Your task to perform on an android device: turn off smart reply in the gmail app Image 0: 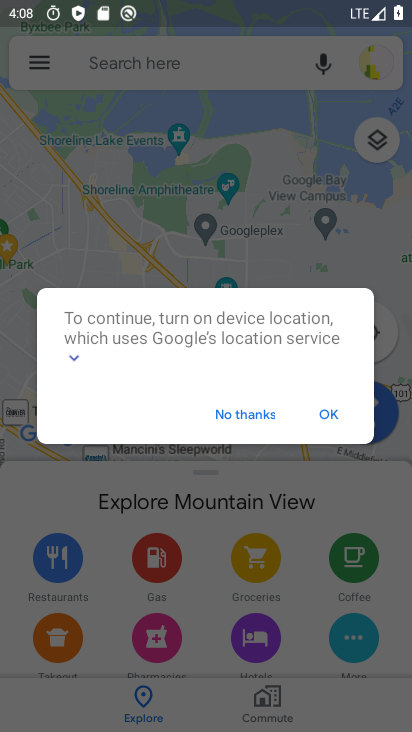
Step 0: press home button
Your task to perform on an android device: turn off smart reply in the gmail app Image 1: 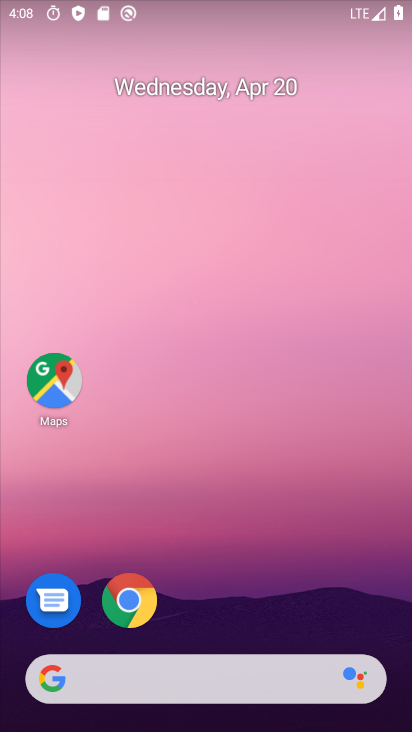
Step 1: drag from (216, 605) to (250, 111)
Your task to perform on an android device: turn off smart reply in the gmail app Image 2: 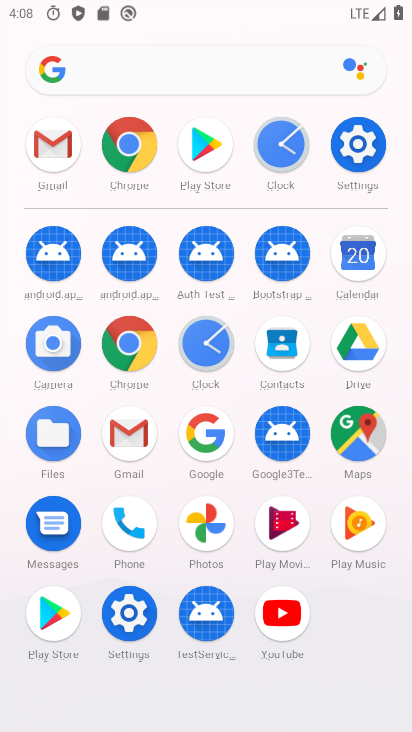
Step 2: click (126, 424)
Your task to perform on an android device: turn off smart reply in the gmail app Image 3: 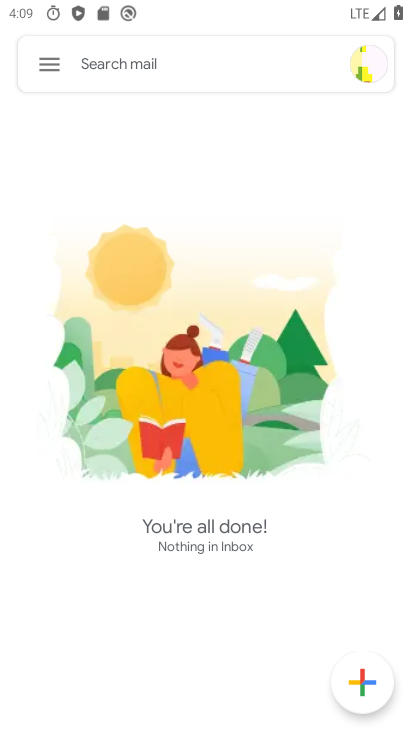
Step 3: click (48, 68)
Your task to perform on an android device: turn off smart reply in the gmail app Image 4: 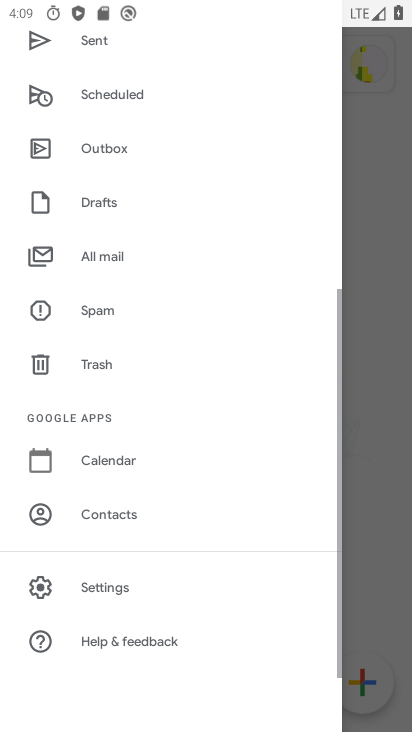
Step 4: drag from (137, 538) to (212, 17)
Your task to perform on an android device: turn off smart reply in the gmail app Image 5: 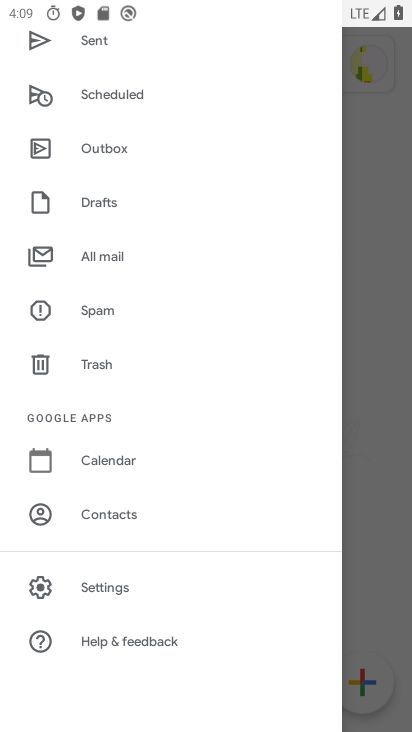
Step 5: click (114, 587)
Your task to perform on an android device: turn off smart reply in the gmail app Image 6: 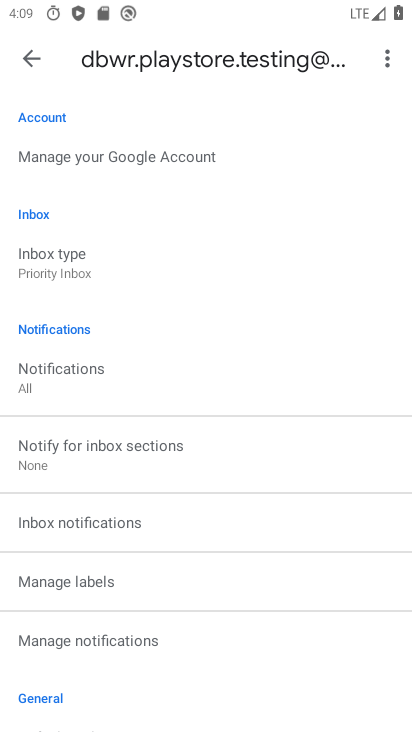
Step 6: drag from (222, 612) to (181, 91)
Your task to perform on an android device: turn off smart reply in the gmail app Image 7: 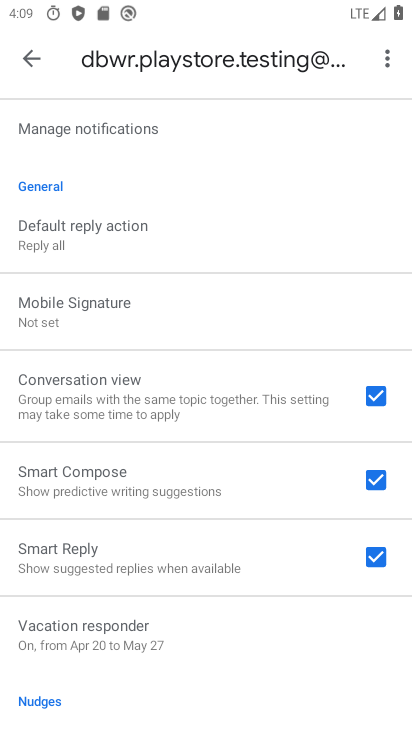
Step 7: click (378, 558)
Your task to perform on an android device: turn off smart reply in the gmail app Image 8: 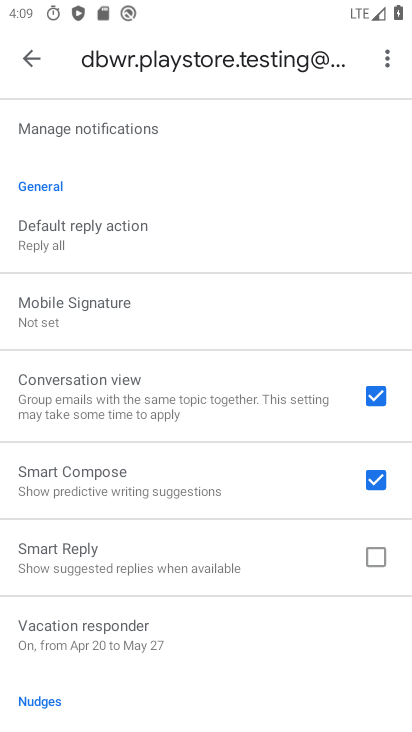
Step 8: task complete